Your task to perform on an android device: Go to accessibility settings Image 0: 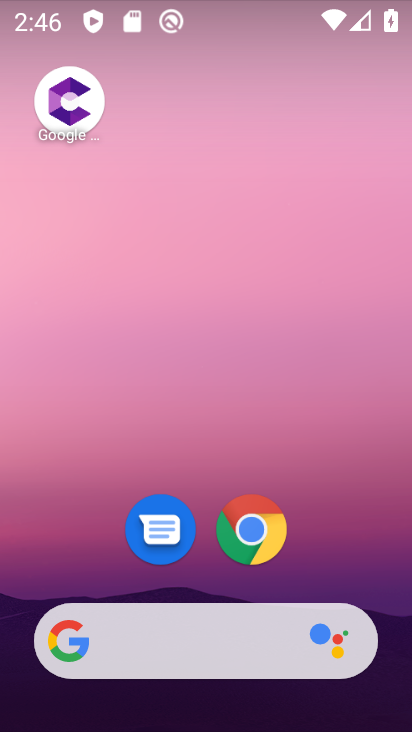
Step 0: drag from (213, 553) to (262, 58)
Your task to perform on an android device: Go to accessibility settings Image 1: 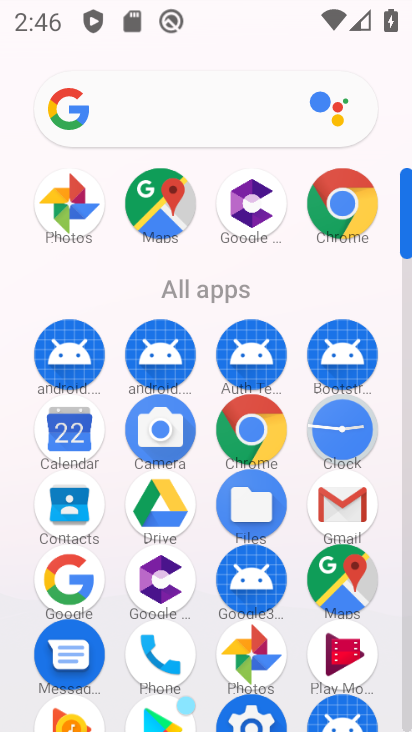
Step 1: drag from (269, 452) to (313, 0)
Your task to perform on an android device: Go to accessibility settings Image 2: 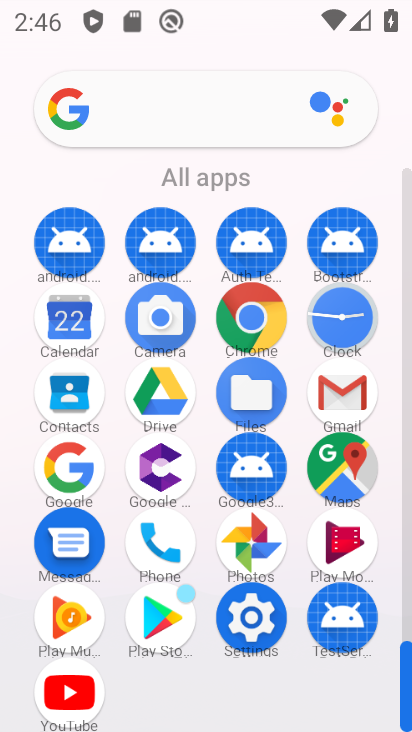
Step 2: click (255, 615)
Your task to perform on an android device: Go to accessibility settings Image 3: 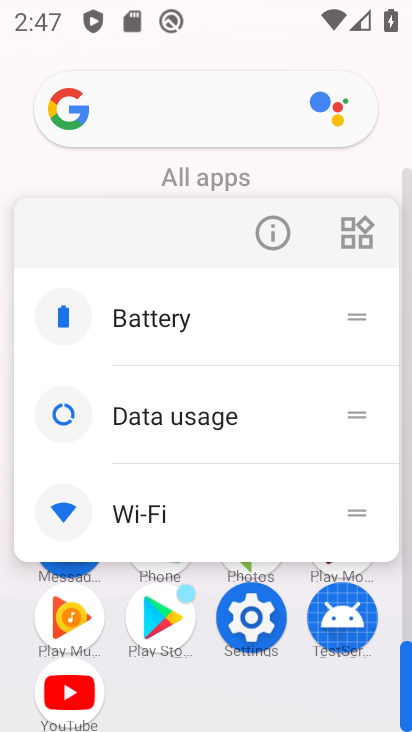
Step 3: click (253, 617)
Your task to perform on an android device: Go to accessibility settings Image 4: 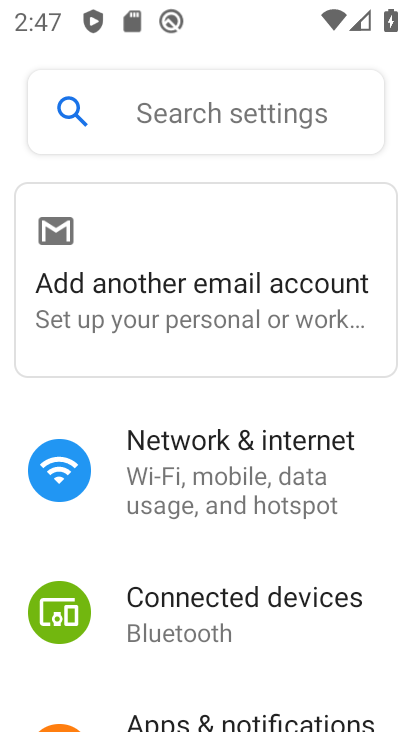
Step 4: drag from (195, 637) to (318, 255)
Your task to perform on an android device: Go to accessibility settings Image 5: 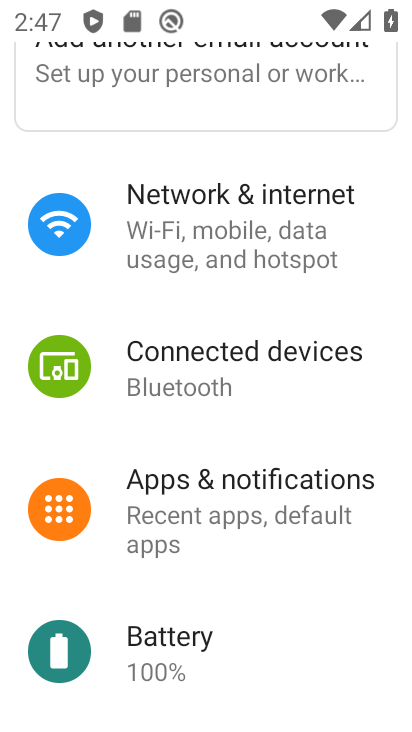
Step 5: drag from (234, 453) to (294, 133)
Your task to perform on an android device: Go to accessibility settings Image 6: 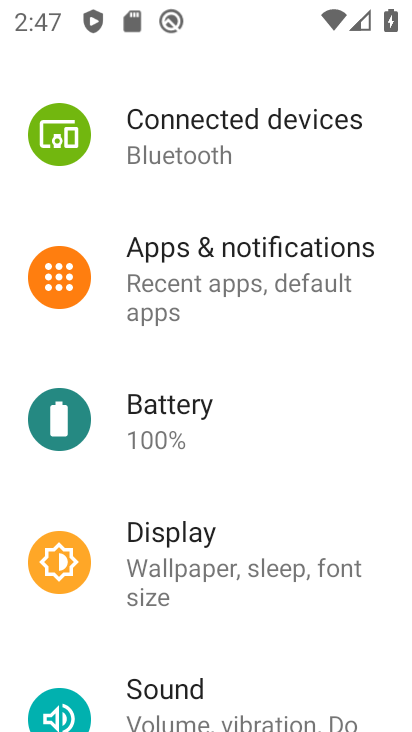
Step 6: drag from (235, 530) to (291, 126)
Your task to perform on an android device: Go to accessibility settings Image 7: 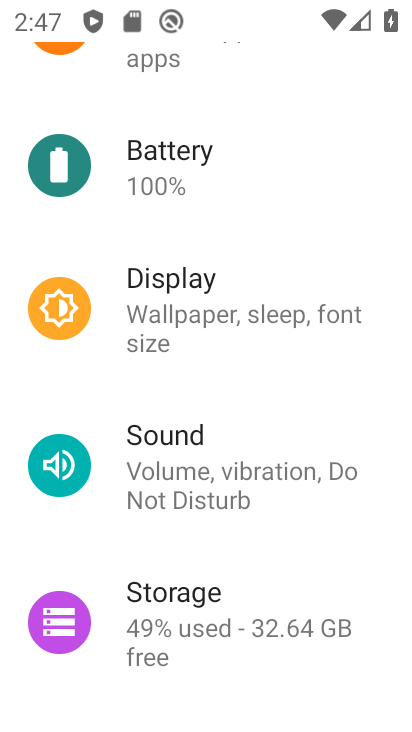
Step 7: drag from (233, 478) to (261, 111)
Your task to perform on an android device: Go to accessibility settings Image 8: 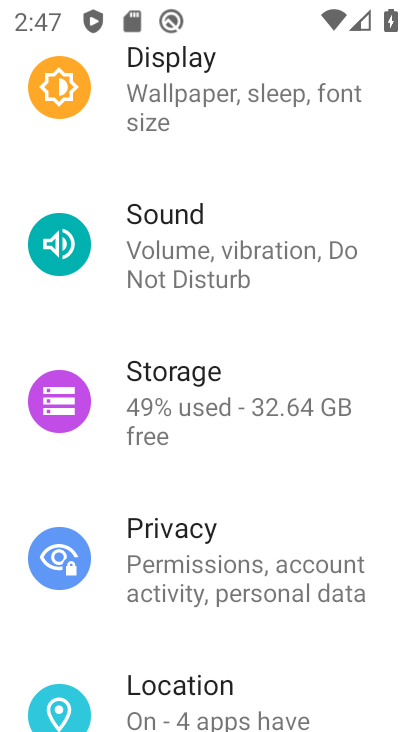
Step 8: drag from (212, 485) to (292, 121)
Your task to perform on an android device: Go to accessibility settings Image 9: 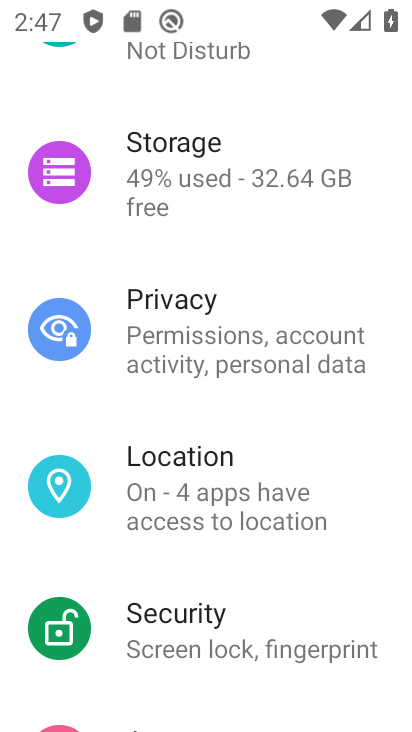
Step 9: drag from (248, 582) to (302, 138)
Your task to perform on an android device: Go to accessibility settings Image 10: 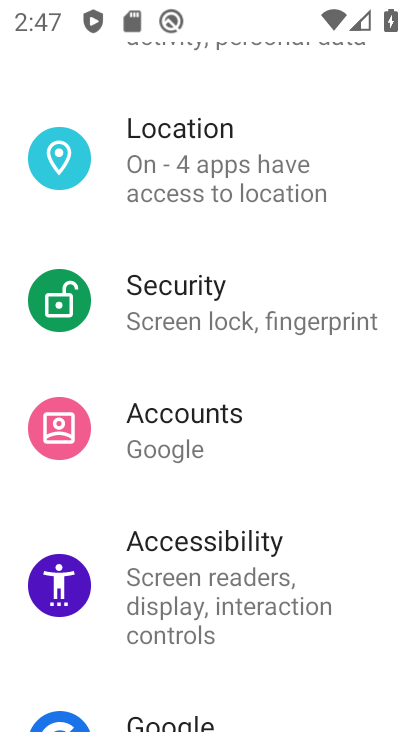
Step 10: click (255, 579)
Your task to perform on an android device: Go to accessibility settings Image 11: 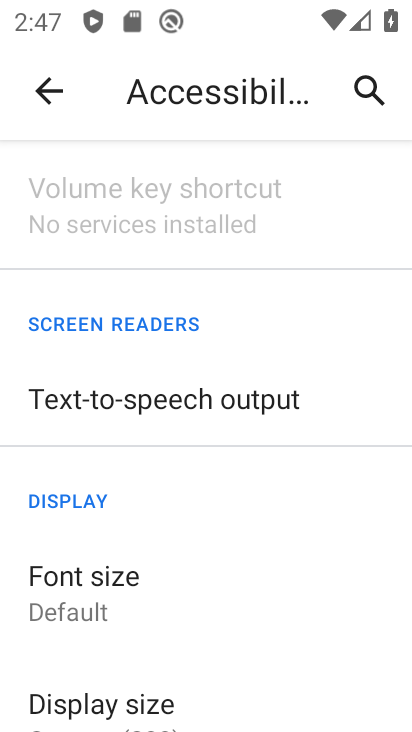
Step 11: task complete